Your task to perform on an android device: Go to Wikipedia Image 0: 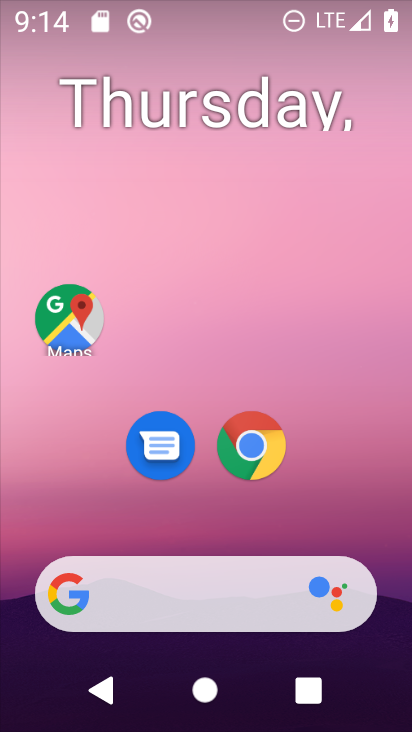
Step 0: drag from (384, 622) to (314, 53)
Your task to perform on an android device: Go to Wikipedia Image 1: 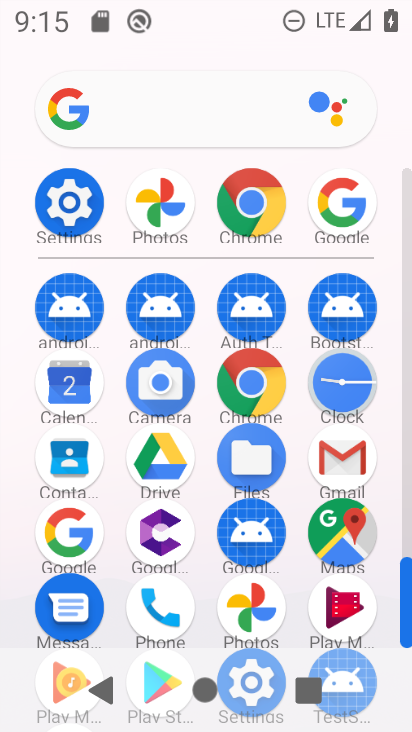
Step 1: click (52, 512)
Your task to perform on an android device: Go to Wikipedia Image 2: 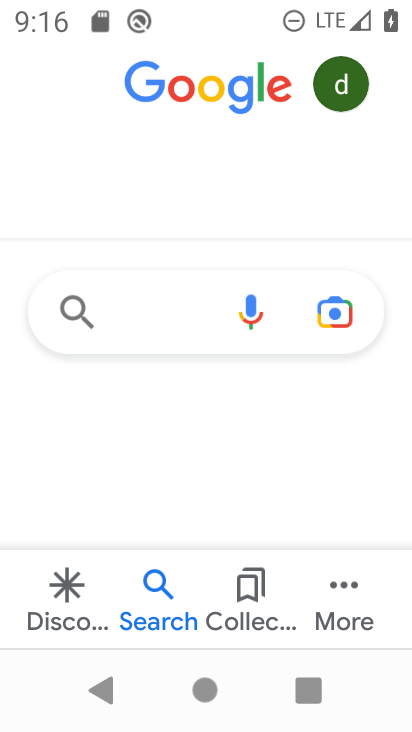
Step 2: click (173, 303)
Your task to perform on an android device: Go to Wikipedia Image 3: 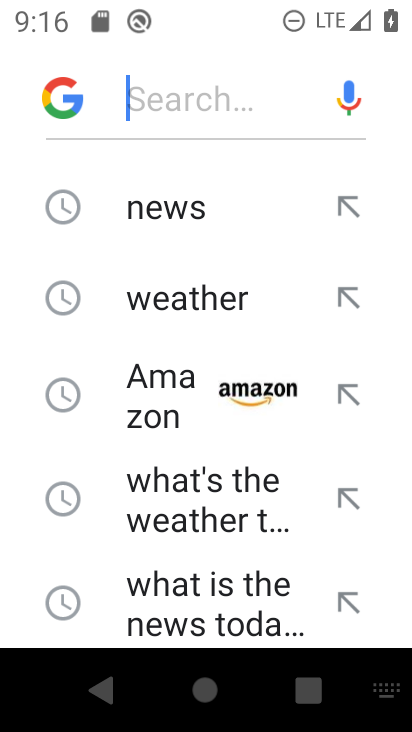
Step 3: drag from (181, 538) to (191, 45)
Your task to perform on an android device: Go to Wikipedia Image 4: 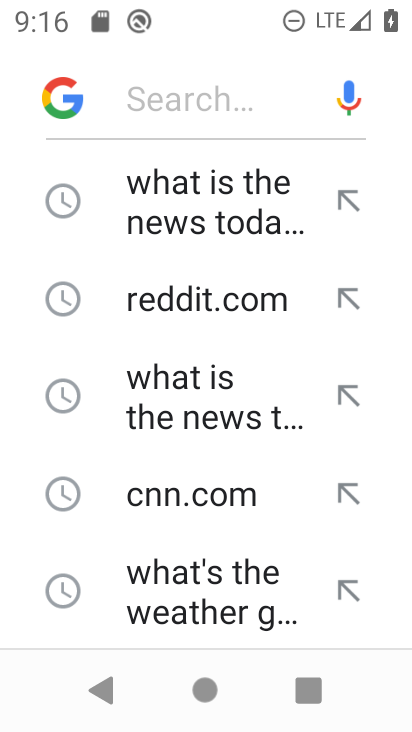
Step 4: drag from (143, 584) to (144, 74)
Your task to perform on an android device: Go to Wikipedia Image 5: 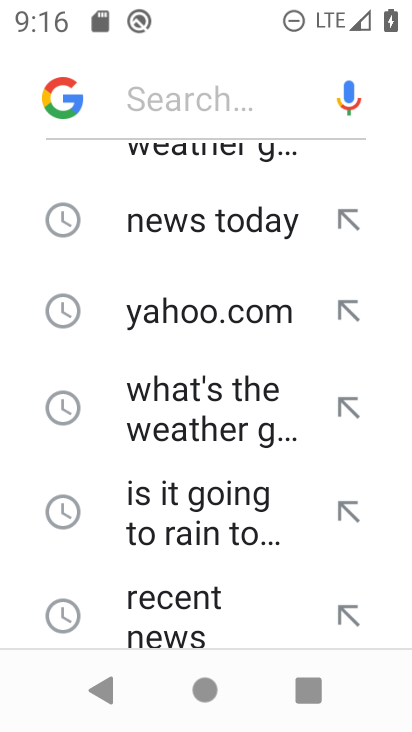
Step 5: drag from (176, 572) to (178, 81)
Your task to perform on an android device: Go to Wikipedia Image 6: 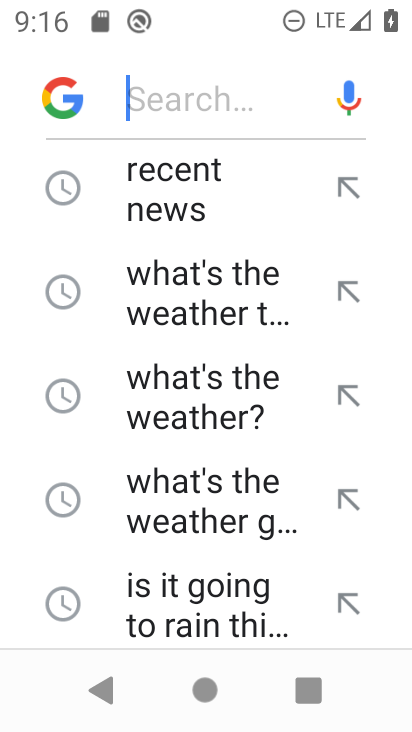
Step 6: drag from (213, 552) to (176, 76)
Your task to perform on an android device: Go to Wikipedia Image 7: 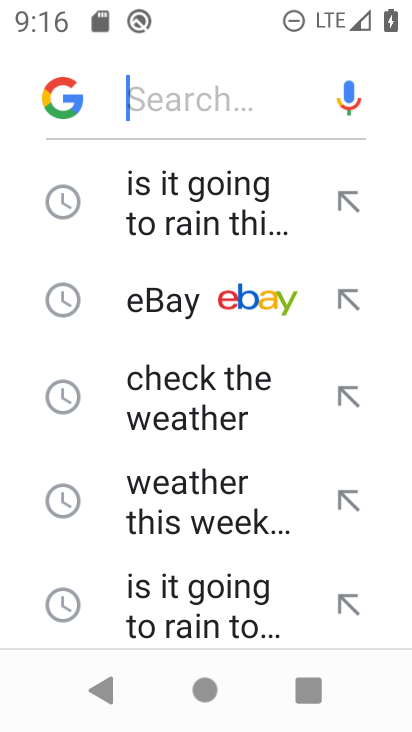
Step 7: drag from (125, 611) to (172, 125)
Your task to perform on an android device: Go to Wikipedia Image 8: 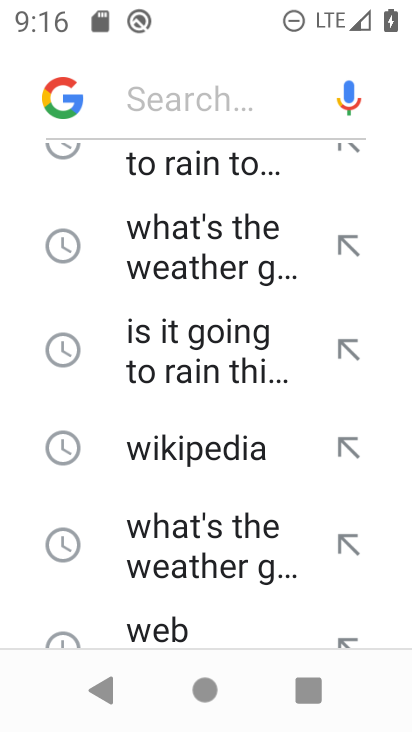
Step 8: click (192, 469)
Your task to perform on an android device: Go to Wikipedia Image 9: 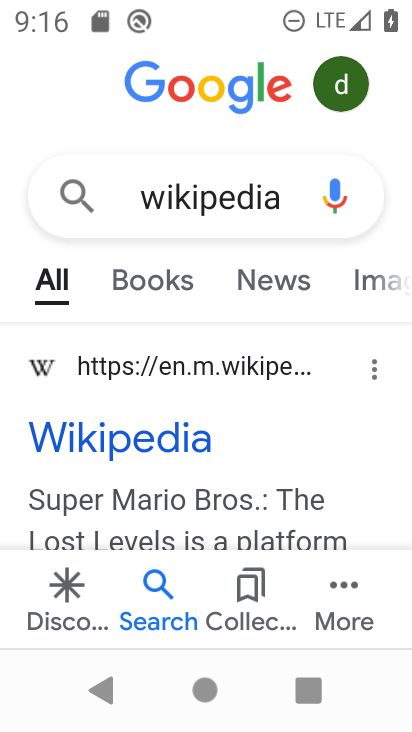
Step 9: task complete